Your task to perform on an android device: delete the emails in spam in the gmail app Image 0: 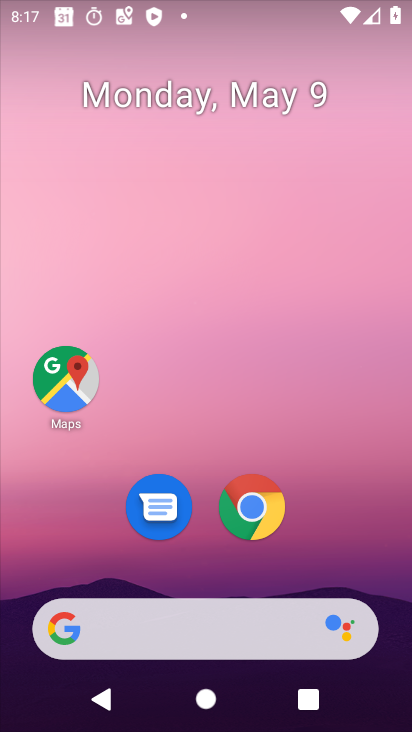
Step 0: press home button
Your task to perform on an android device: delete the emails in spam in the gmail app Image 1: 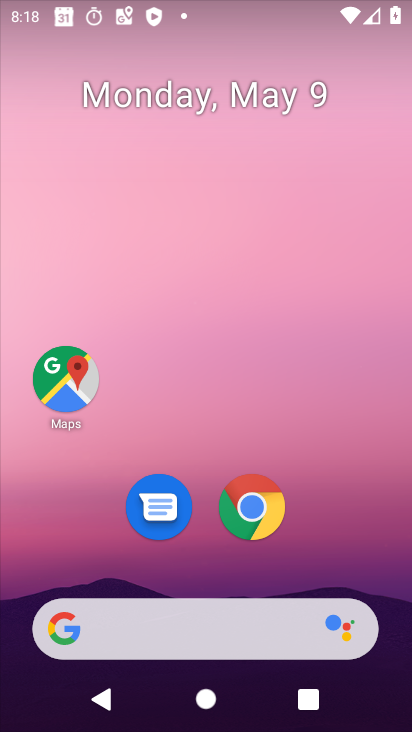
Step 1: drag from (258, 659) to (302, 139)
Your task to perform on an android device: delete the emails in spam in the gmail app Image 2: 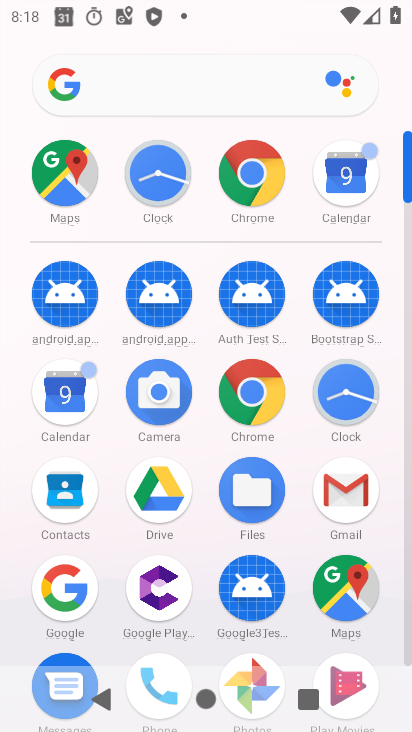
Step 2: click (339, 506)
Your task to perform on an android device: delete the emails in spam in the gmail app Image 3: 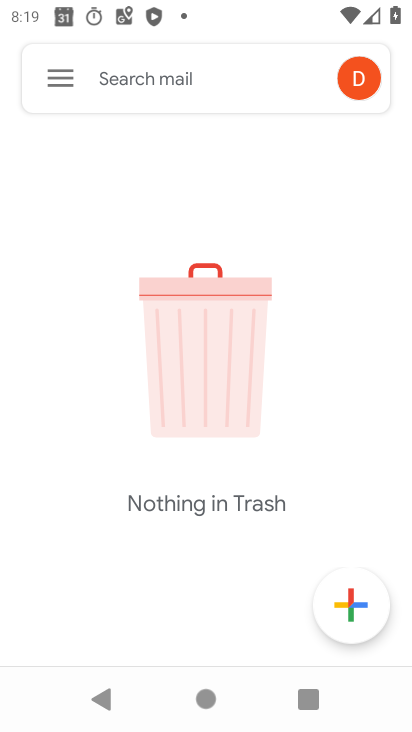
Step 3: click (70, 72)
Your task to perform on an android device: delete the emails in spam in the gmail app Image 4: 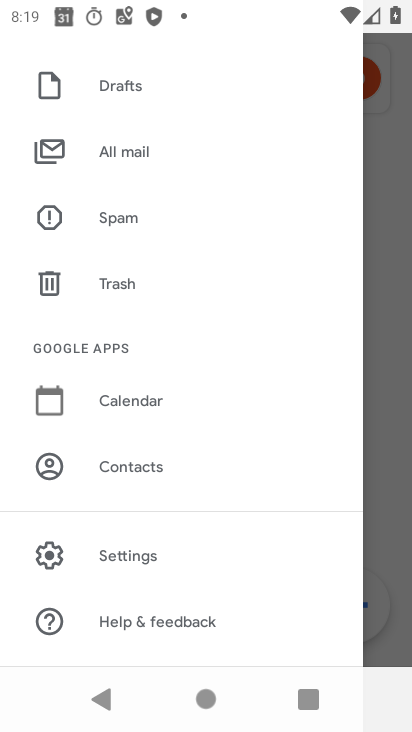
Step 4: click (116, 214)
Your task to perform on an android device: delete the emails in spam in the gmail app Image 5: 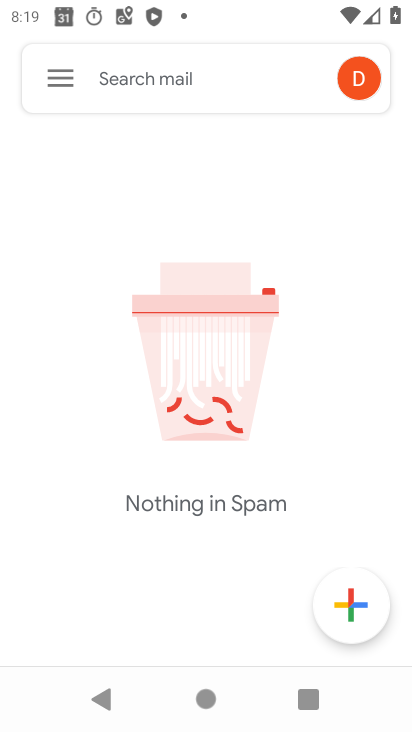
Step 5: task complete